Your task to perform on an android device: Go to Android settings Image 0: 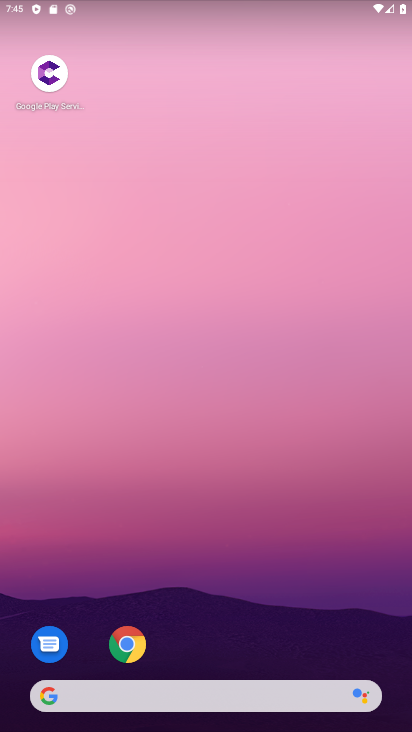
Step 0: drag from (48, 704) to (156, 21)
Your task to perform on an android device: Go to Android settings Image 1: 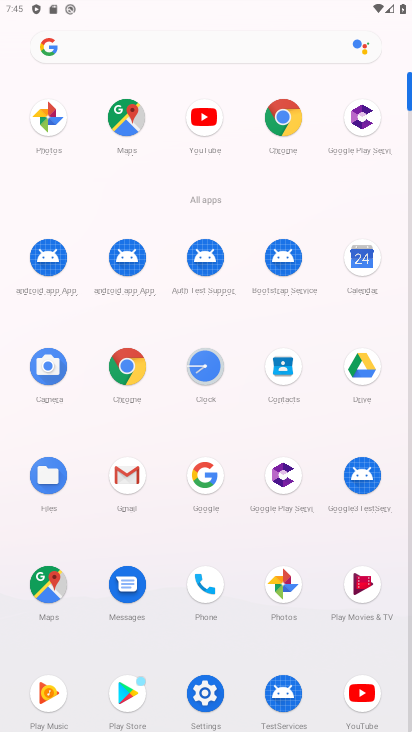
Step 1: click (200, 692)
Your task to perform on an android device: Go to Android settings Image 2: 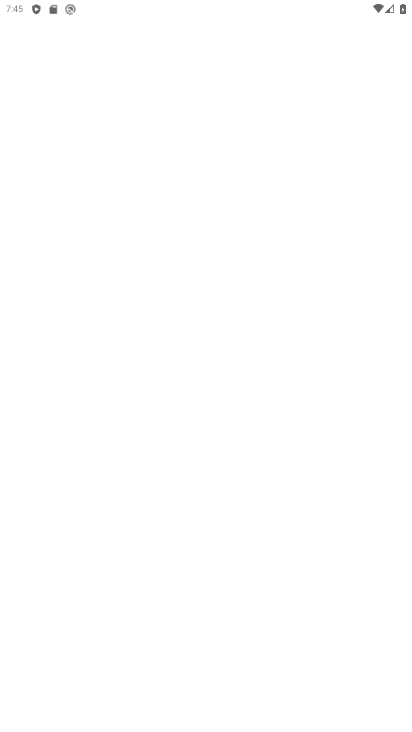
Step 2: drag from (263, 608) to (319, 7)
Your task to perform on an android device: Go to Android settings Image 3: 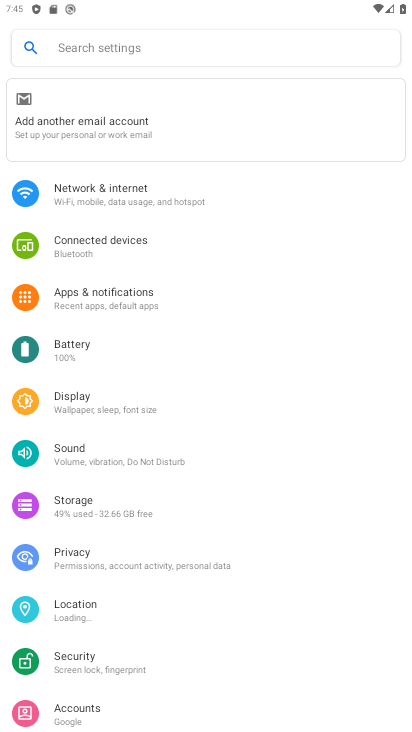
Step 3: drag from (294, 508) to (182, 13)
Your task to perform on an android device: Go to Android settings Image 4: 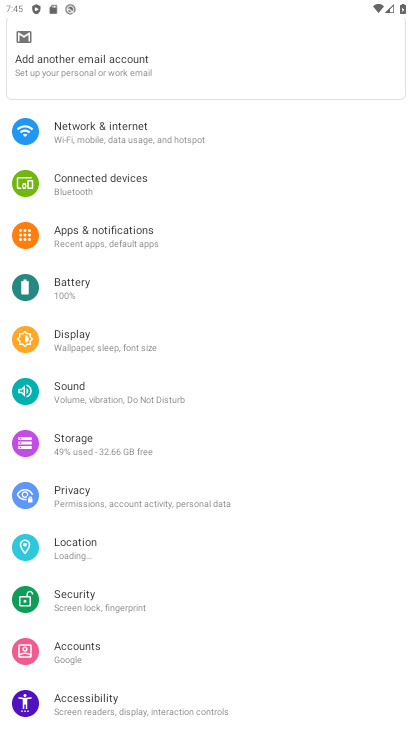
Step 4: drag from (254, 714) to (133, 166)
Your task to perform on an android device: Go to Android settings Image 5: 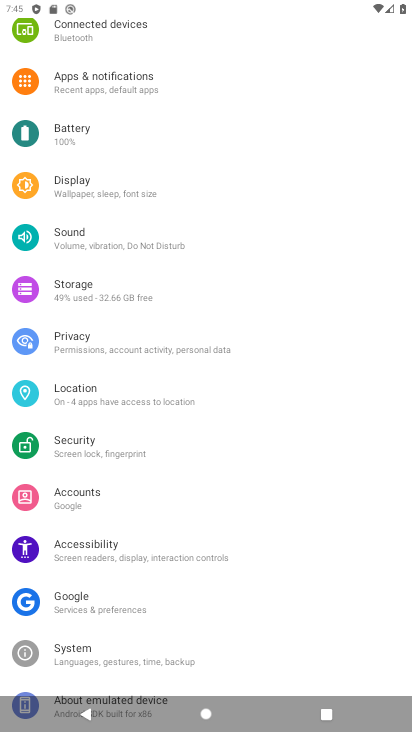
Step 5: drag from (189, 644) to (162, 283)
Your task to perform on an android device: Go to Android settings Image 6: 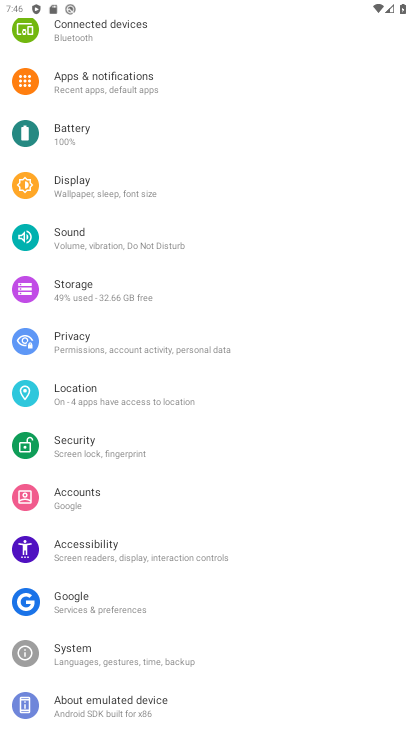
Step 6: click (163, 700)
Your task to perform on an android device: Go to Android settings Image 7: 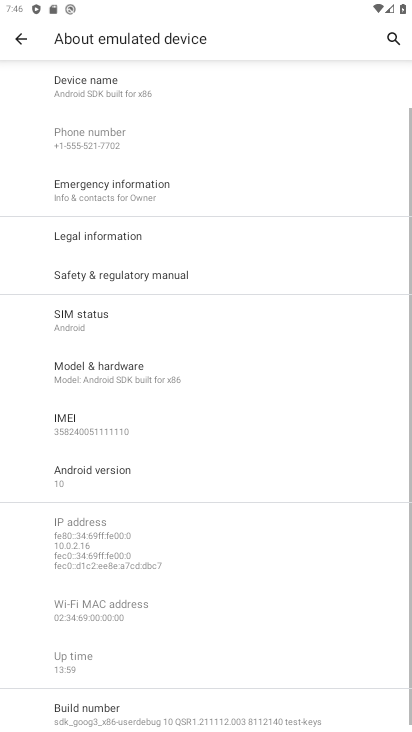
Step 7: task complete